Your task to perform on an android device: clear all cookies in the chrome app Image 0: 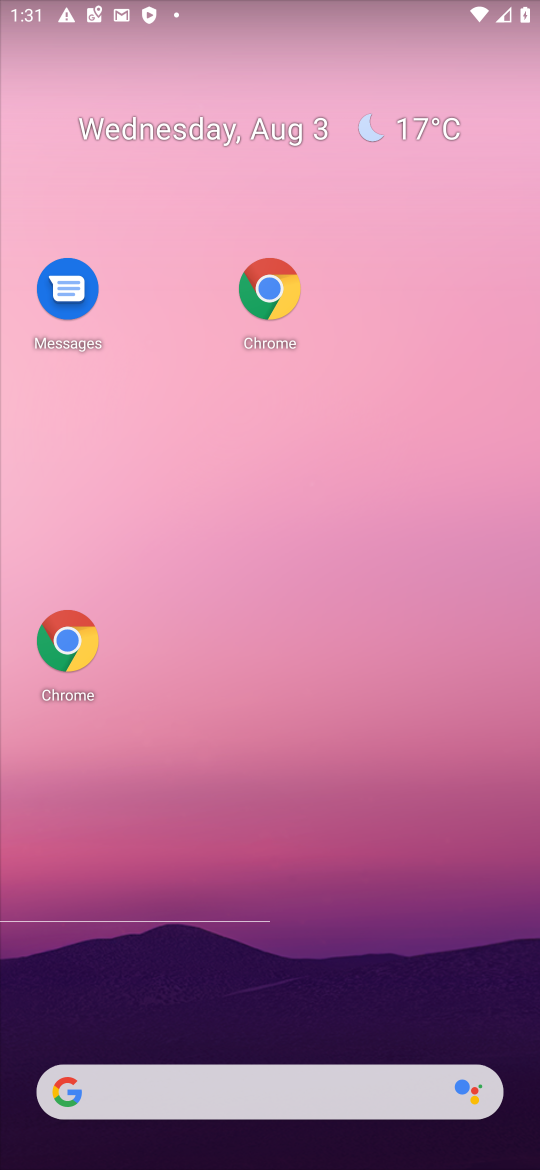
Step 0: click (80, 631)
Your task to perform on an android device: clear all cookies in the chrome app Image 1: 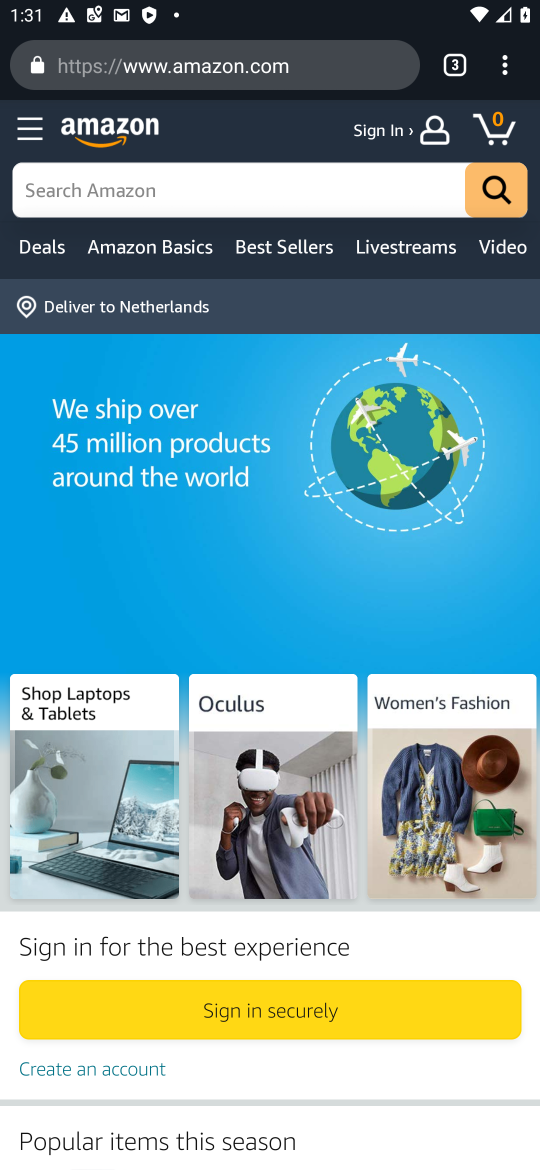
Step 1: click (515, 80)
Your task to perform on an android device: clear all cookies in the chrome app Image 2: 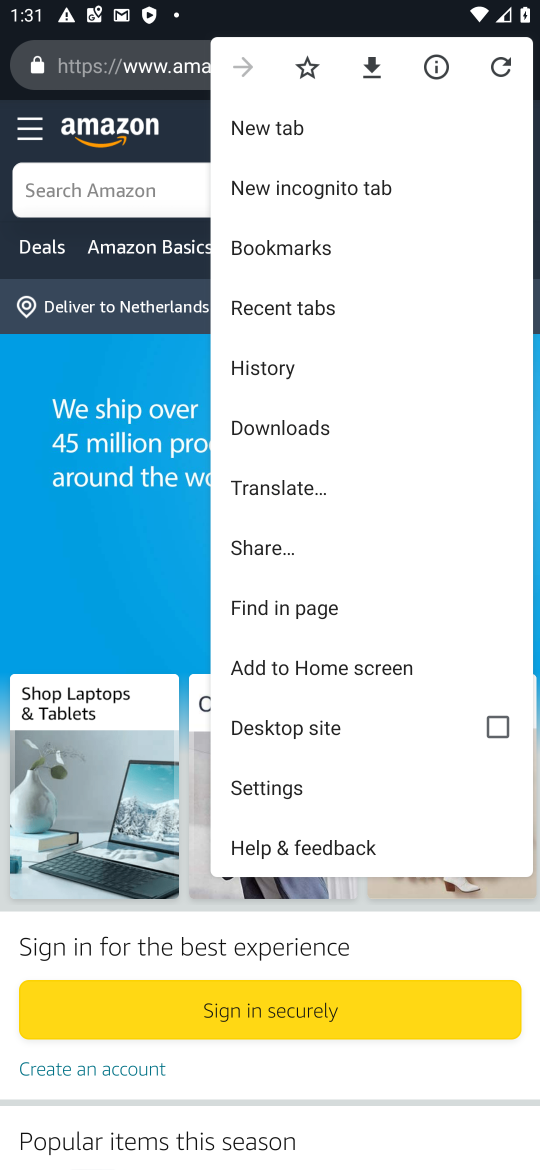
Step 2: click (286, 778)
Your task to perform on an android device: clear all cookies in the chrome app Image 3: 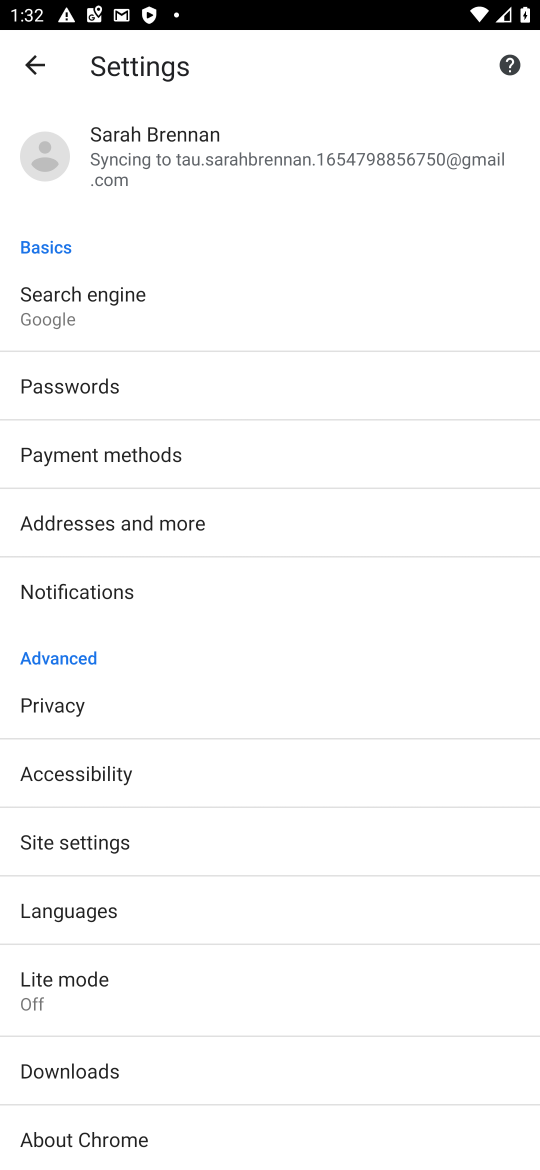
Step 3: click (200, 860)
Your task to perform on an android device: clear all cookies in the chrome app Image 4: 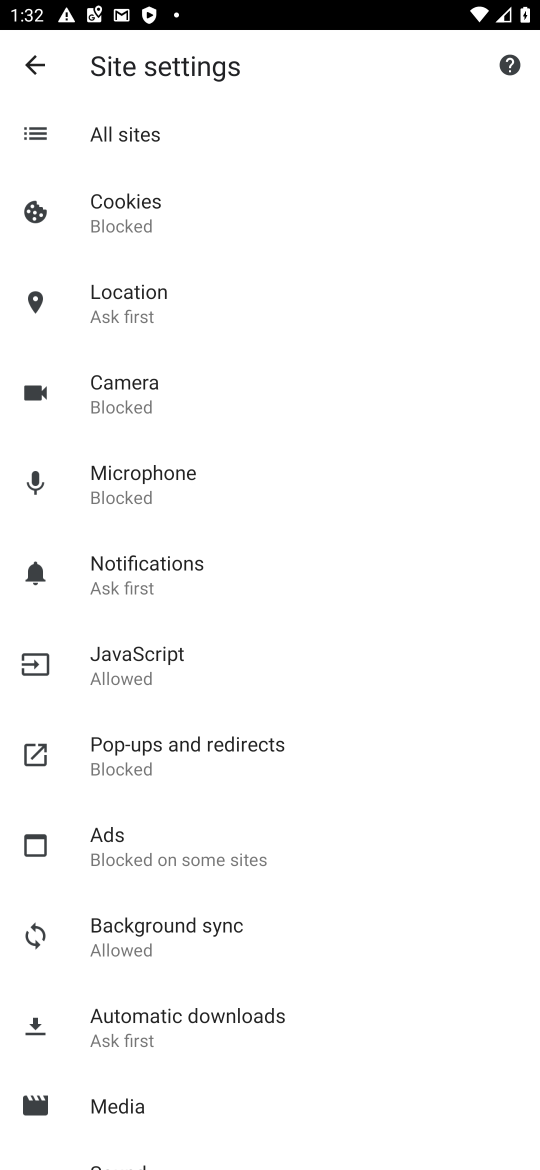
Step 4: task complete